Your task to perform on an android device: turn on the 12-hour format for clock Image 0: 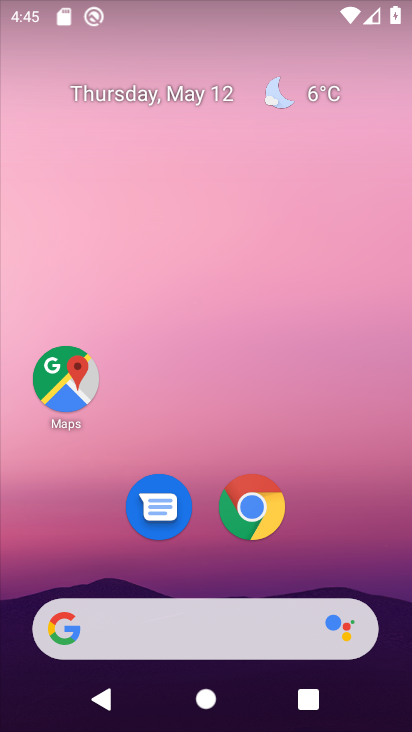
Step 0: drag from (346, 517) to (334, 123)
Your task to perform on an android device: turn on the 12-hour format for clock Image 1: 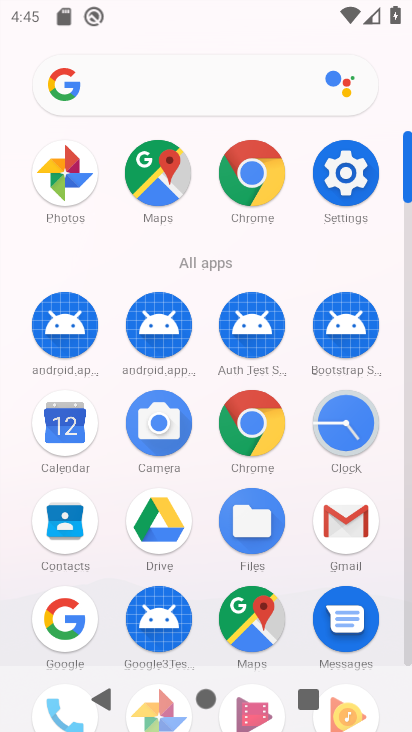
Step 1: click (349, 436)
Your task to perform on an android device: turn on the 12-hour format for clock Image 2: 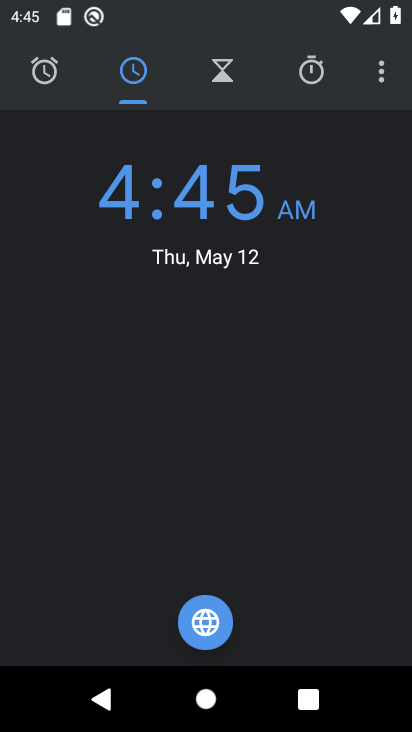
Step 2: click (382, 75)
Your task to perform on an android device: turn on the 12-hour format for clock Image 3: 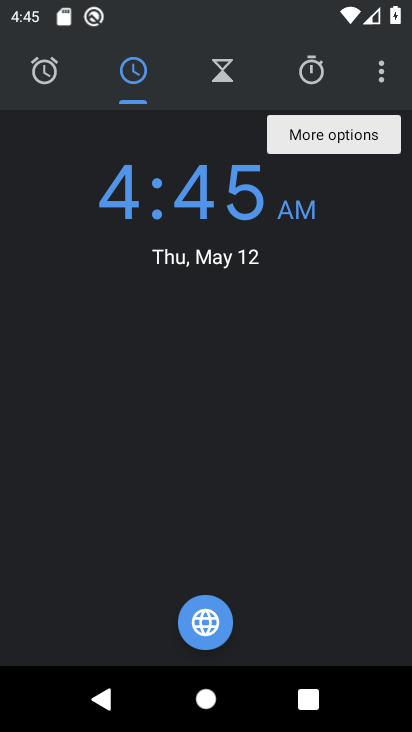
Step 3: click (372, 80)
Your task to perform on an android device: turn on the 12-hour format for clock Image 4: 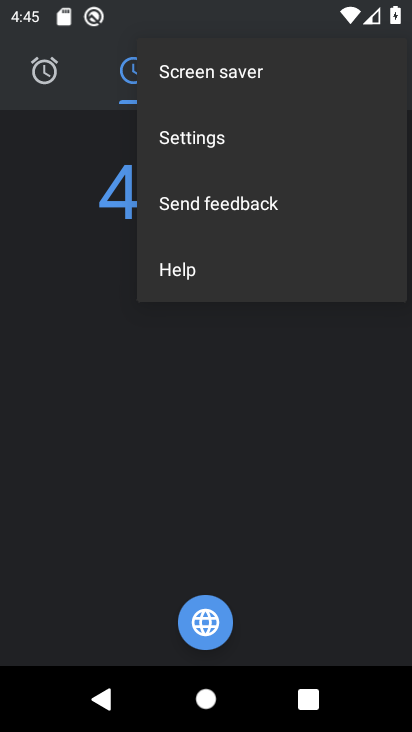
Step 4: click (258, 148)
Your task to perform on an android device: turn on the 12-hour format for clock Image 5: 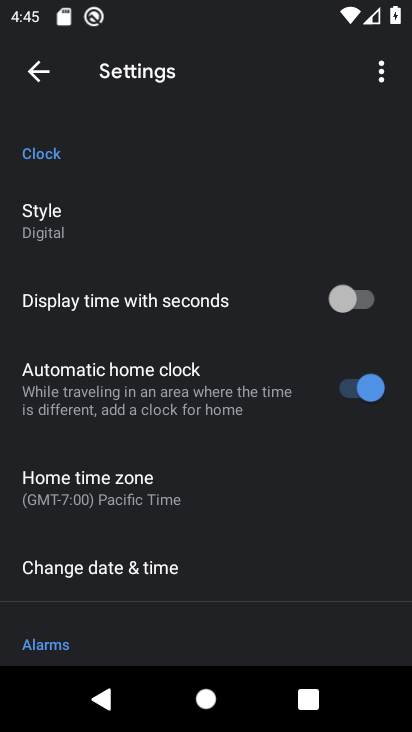
Step 5: click (194, 564)
Your task to perform on an android device: turn on the 12-hour format for clock Image 6: 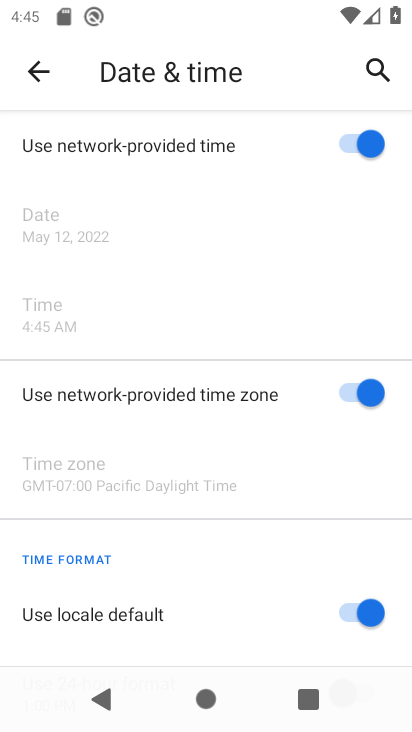
Step 6: drag from (282, 628) to (331, 217)
Your task to perform on an android device: turn on the 12-hour format for clock Image 7: 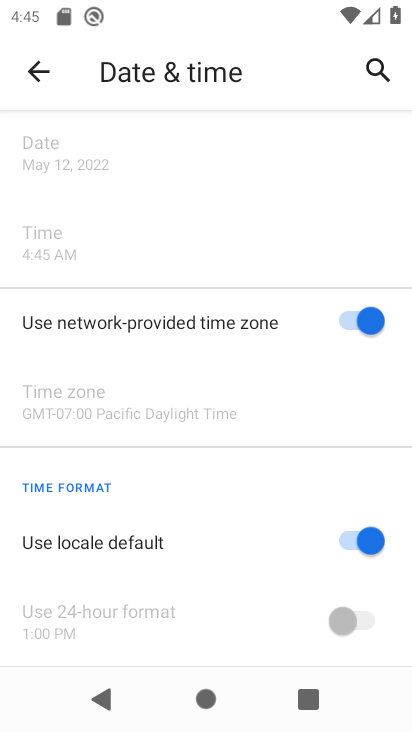
Step 7: click (369, 538)
Your task to perform on an android device: turn on the 12-hour format for clock Image 8: 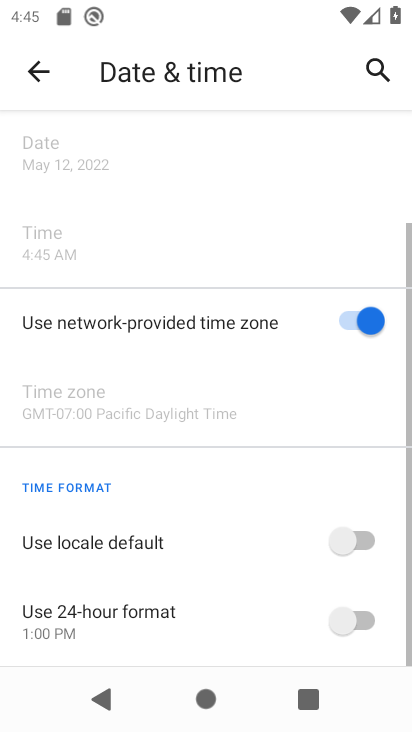
Step 8: click (353, 618)
Your task to perform on an android device: turn on the 12-hour format for clock Image 9: 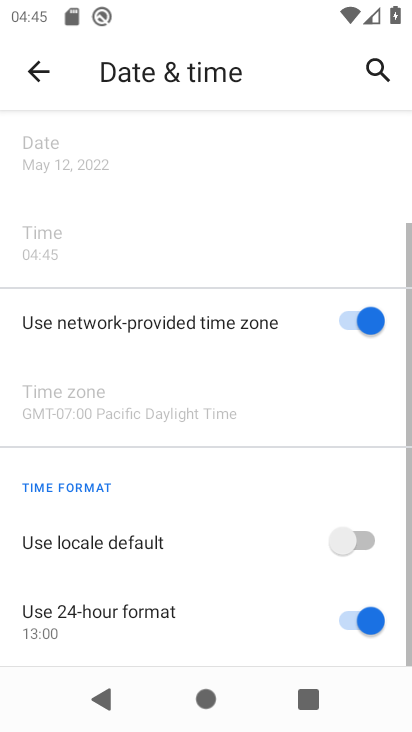
Step 9: task complete